Your task to perform on an android device: Search for Italian restaurants on Maps Image 0: 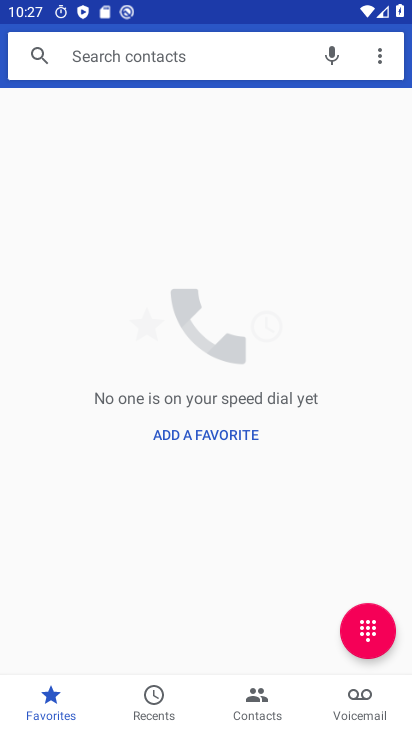
Step 0: press home button
Your task to perform on an android device: Search for Italian restaurants on Maps Image 1: 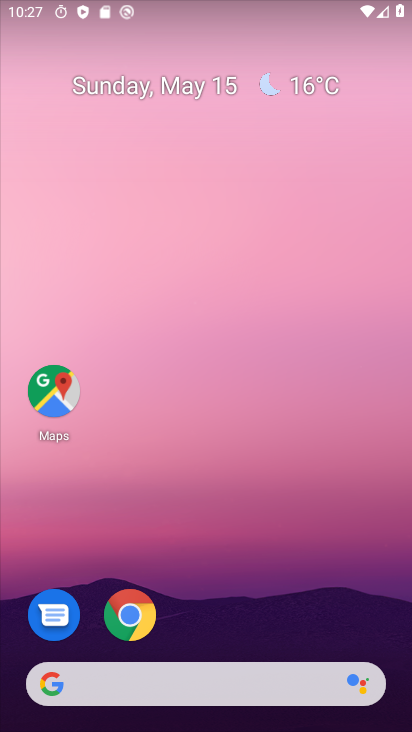
Step 1: click (2, 401)
Your task to perform on an android device: Search for Italian restaurants on Maps Image 2: 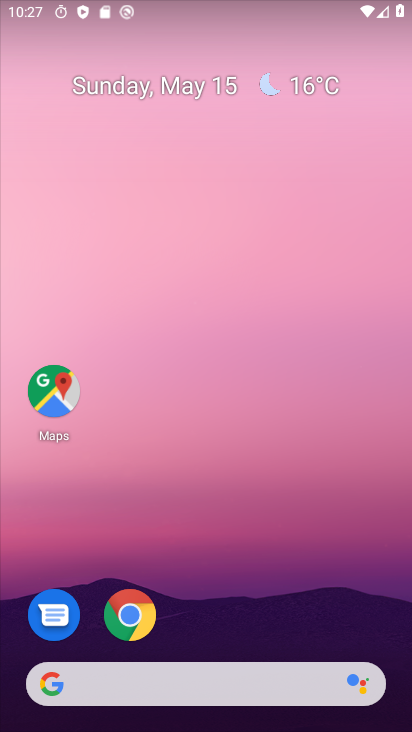
Step 2: drag from (196, 711) to (337, 40)
Your task to perform on an android device: Search for Italian restaurants on Maps Image 3: 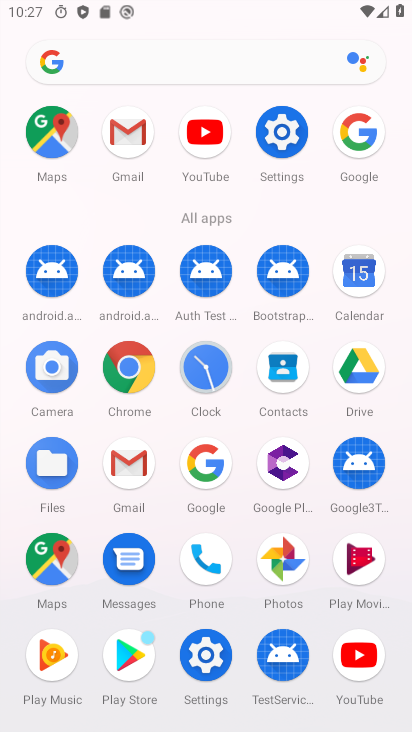
Step 3: click (47, 547)
Your task to perform on an android device: Search for Italian restaurants on Maps Image 4: 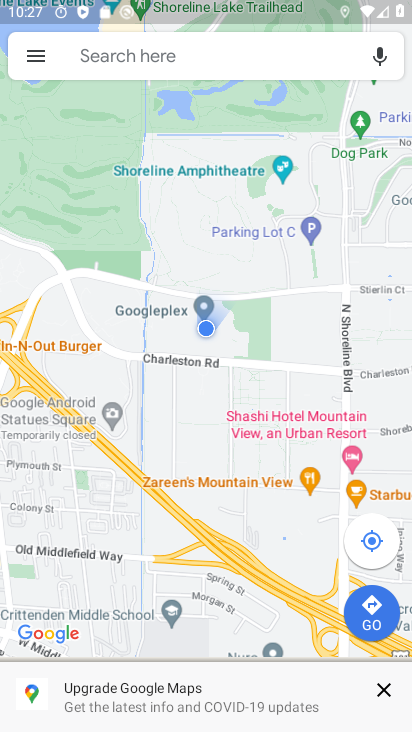
Step 4: click (201, 55)
Your task to perform on an android device: Search for Italian restaurants on Maps Image 5: 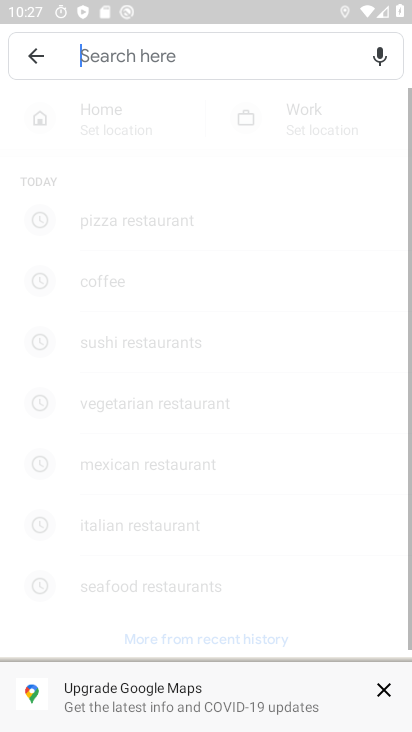
Step 5: click (159, 53)
Your task to perform on an android device: Search for Italian restaurants on Maps Image 6: 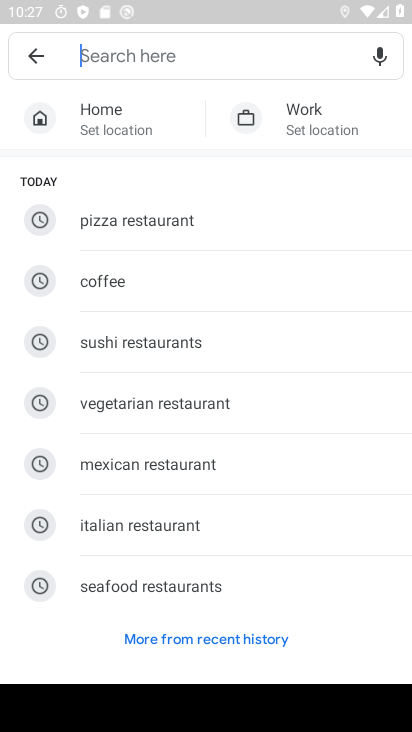
Step 6: click (201, 529)
Your task to perform on an android device: Search for Italian restaurants on Maps Image 7: 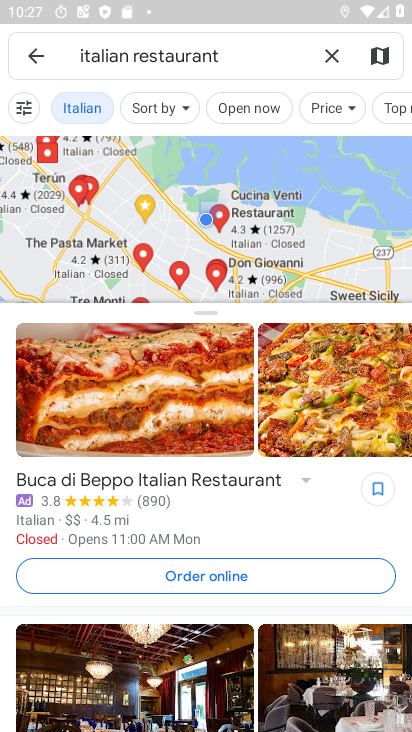
Step 7: task complete